Your task to perform on an android device: Open Google Maps and go to "Timeline" Image 0: 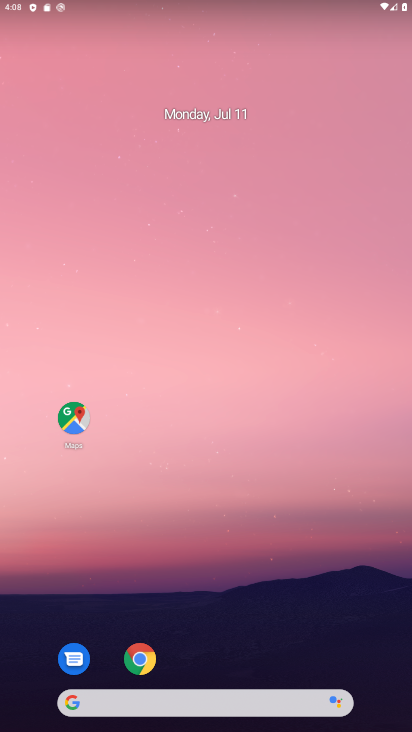
Step 0: click (77, 406)
Your task to perform on an android device: Open Google Maps and go to "Timeline" Image 1: 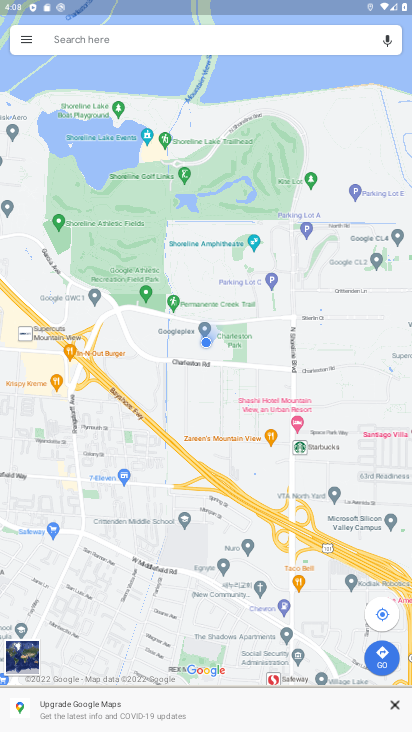
Step 1: click (18, 38)
Your task to perform on an android device: Open Google Maps and go to "Timeline" Image 2: 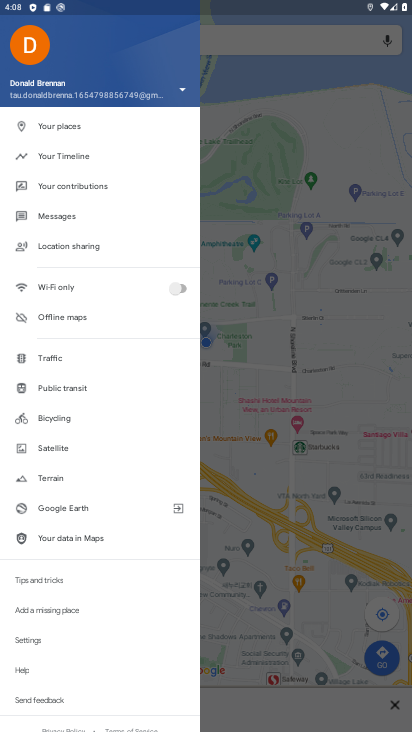
Step 2: click (53, 158)
Your task to perform on an android device: Open Google Maps and go to "Timeline" Image 3: 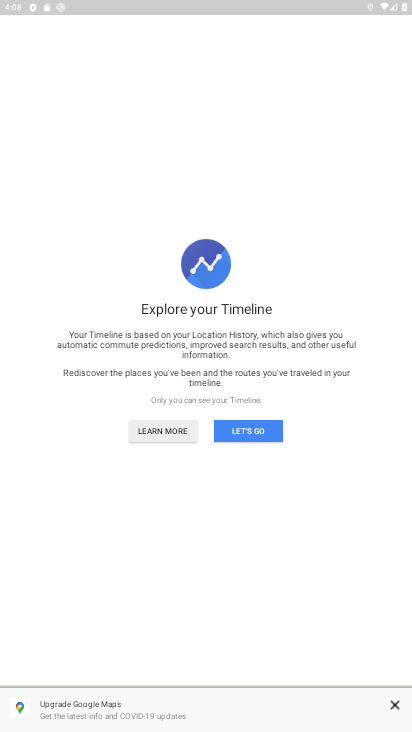
Step 3: click (257, 425)
Your task to perform on an android device: Open Google Maps and go to "Timeline" Image 4: 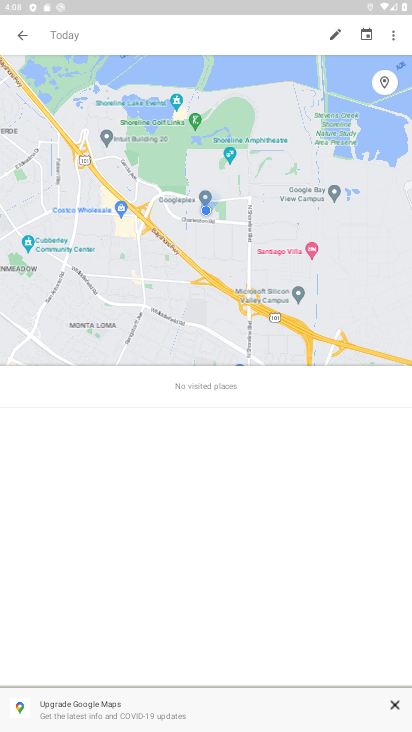
Step 4: task complete